Your task to perform on an android device: turn on javascript in the chrome app Image 0: 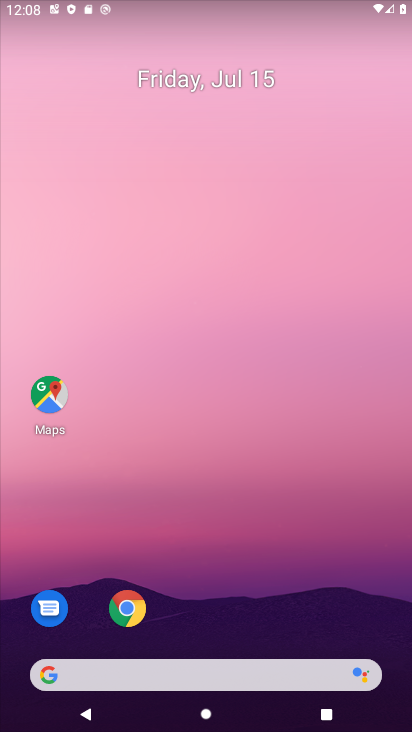
Step 0: drag from (239, 685) to (128, 13)
Your task to perform on an android device: turn on javascript in the chrome app Image 1: 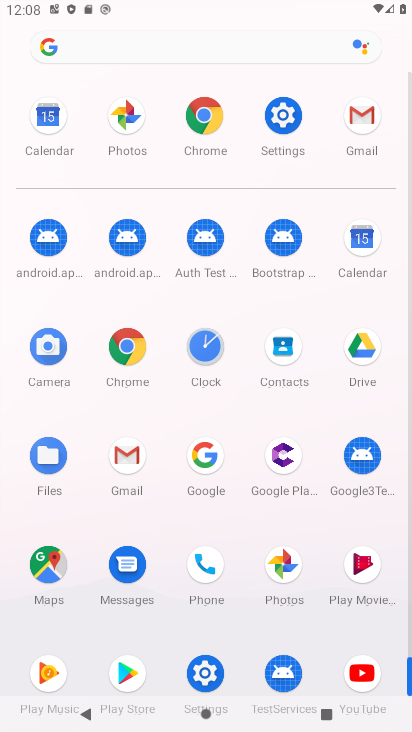
Step 1: click (133, 348)
Your task to perform on an android device: turn on javascript in the chrome app Image 2: 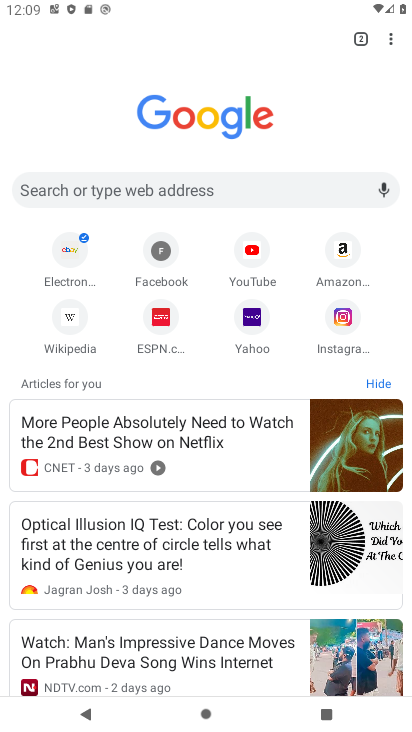
Step 2: drag from (391, 39) to (263, 335)
Your task to perform on an android device: turn on javascript in the chrome app Image 3: 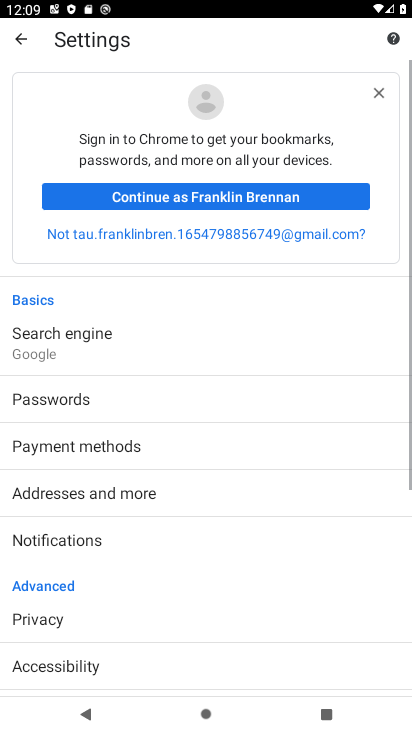
Step 3: drag from (99, 664) to (144, 341)
Your task to perform on an android device: turn on javascript in the chrome app Image 4: 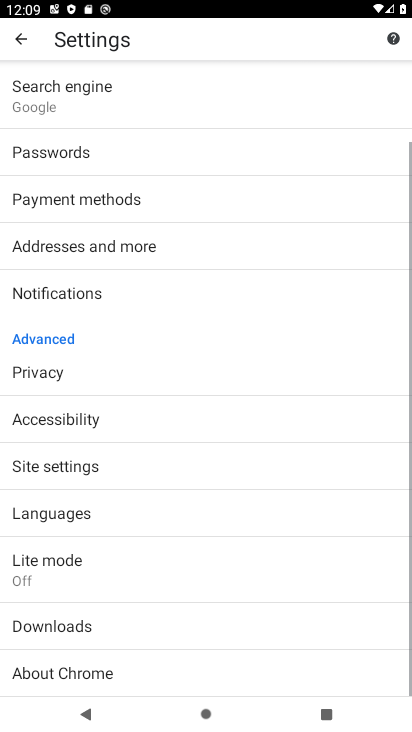
Step 4: click (76, 470)
Your task to perform on an android device: turn on javascript in the chrome app Image 5: 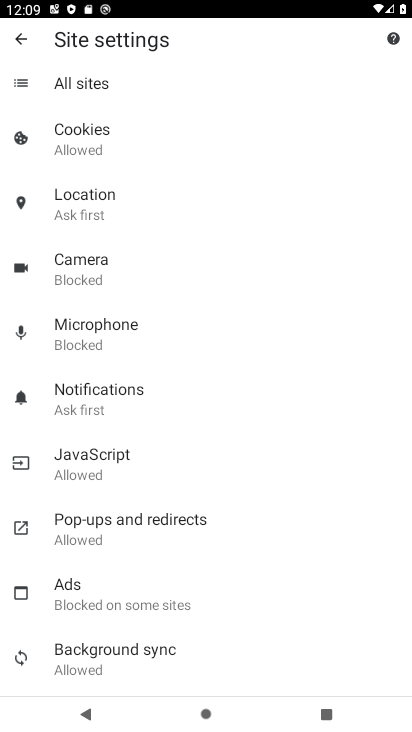
Step 5: click (118, 452)
Your task to perform on an android device: turn on javascript in the chrome app Image 6: 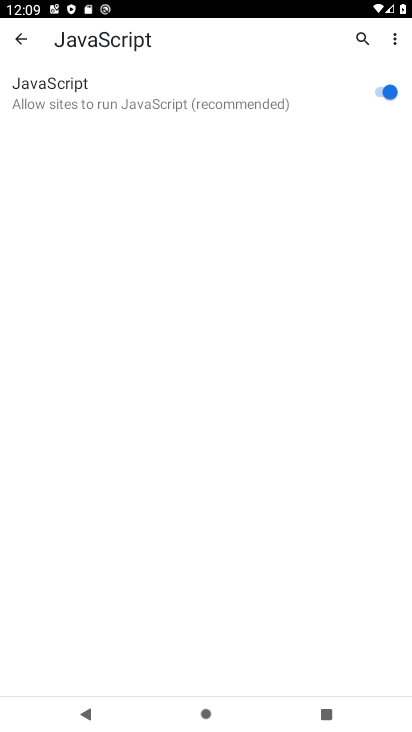
Step 6: task complete